Your task to perform on an android device: What is the news today? Image 0: 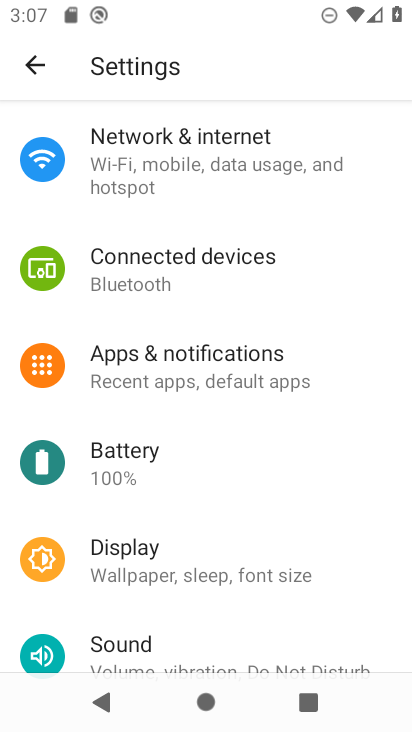
Step 0: press home button
Your task to perform on an android device: What is the news today? Image 1: 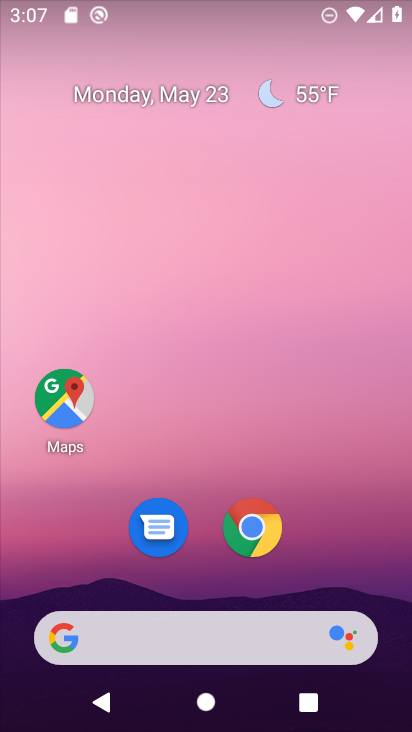
Step 1: task complete